Your task to perform on an android device: Do I have any events this weekend? Image 0: 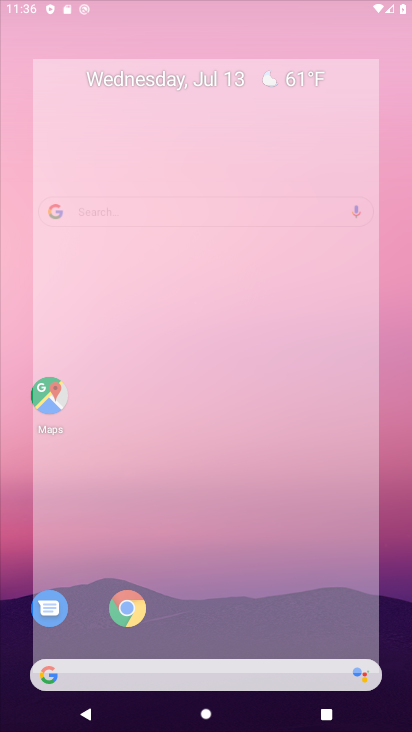
Step 0: drag from (173, 614) to (191, 241)
Your task to perform on an android device: Do I have any events this weekend? Image 1: 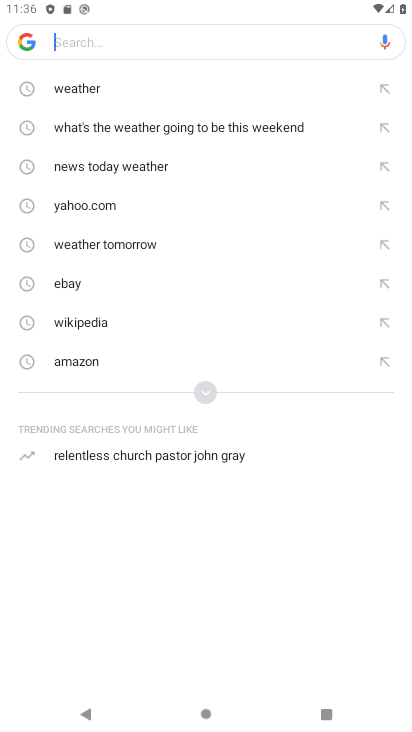
Step 1: press home button
Your task to perform on an android device: Do I have any events this weekend? Image 2: 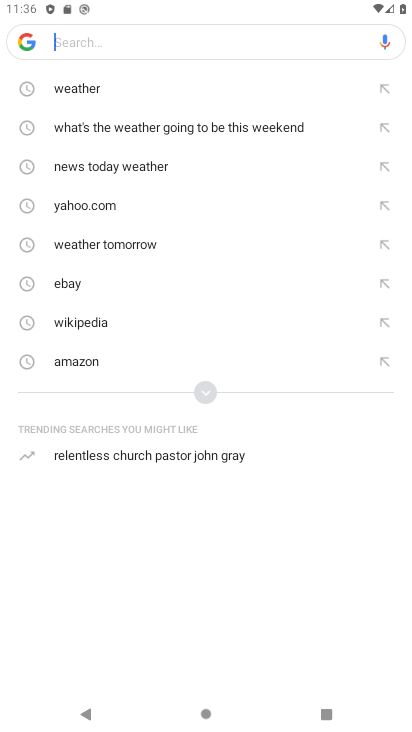
Step 2: press home button
Your task to perform on an android device: Do I have any events this weekend? Image 3: 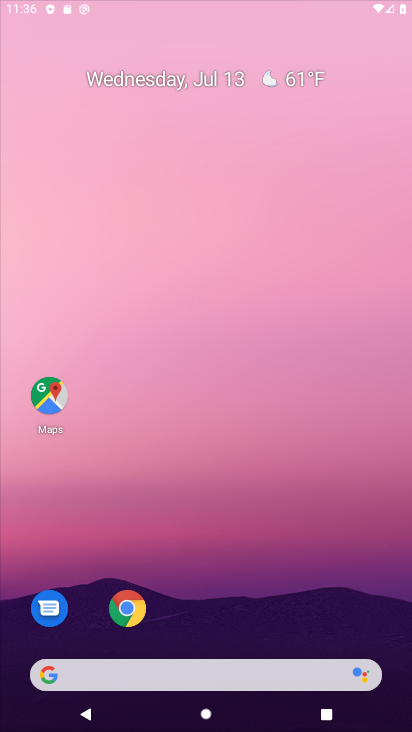
Step 3: drag from (158, 553) to (207, 147)
Your task to perform on an android device: Do I have any events this weekend? Image 4: 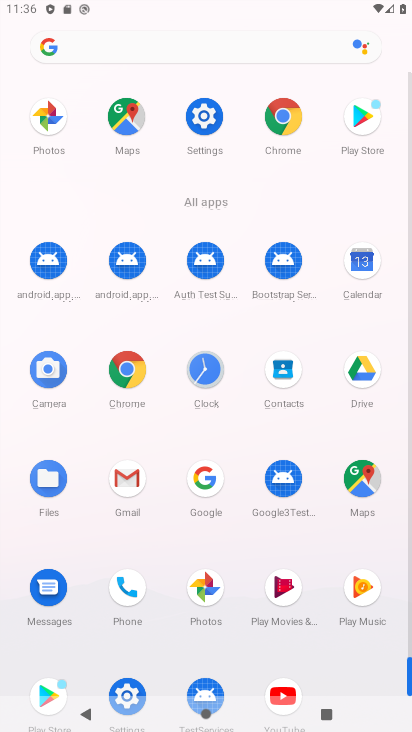
Step 4: drag from (178, 657) to (178, 340)
Your task to perform on an android device: Do I have any events this weekend? Image 5: 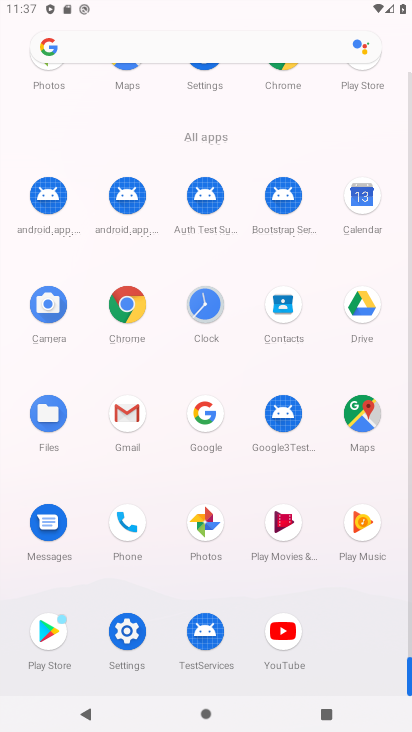
Step 5: click (356, 197)
Your task to perform on an android device: Do I have any events this weekend? Image 6: 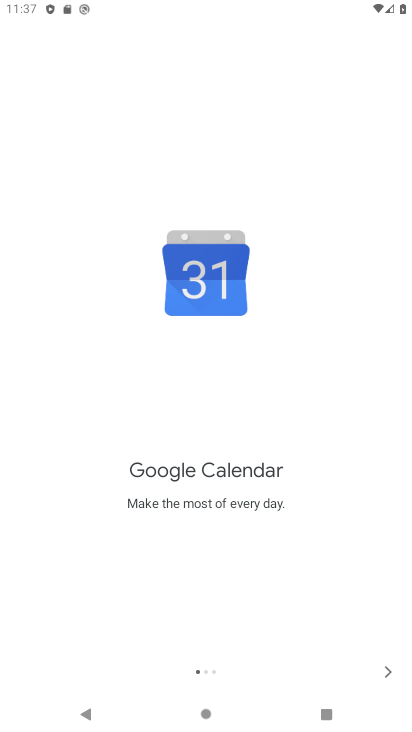
Step 6: drag from (231, 601) to (286, 431)
Your task to perform on an android device: Do I have any events this weekend? Image 7: 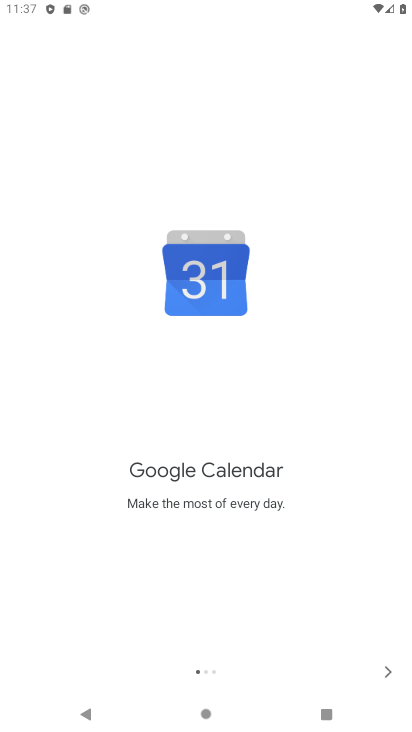
Step 7: click (385, 675)
Your task to perform on an android device: Do I have any events this weekend? Image 8: 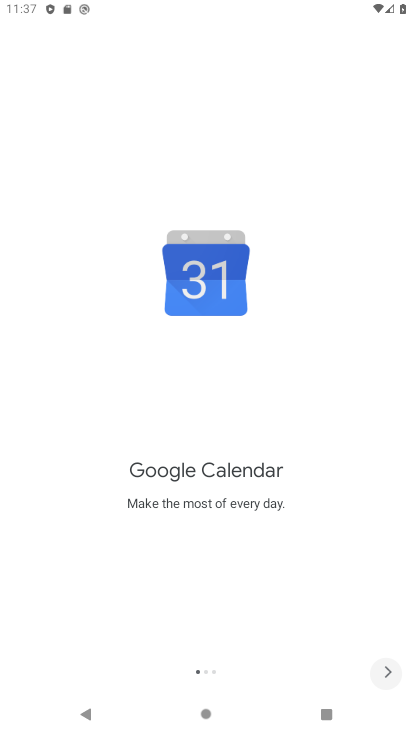
Step 8: click (384, 674)
Your task to perform on an android device: Do I have any events this weekend? Image 9: 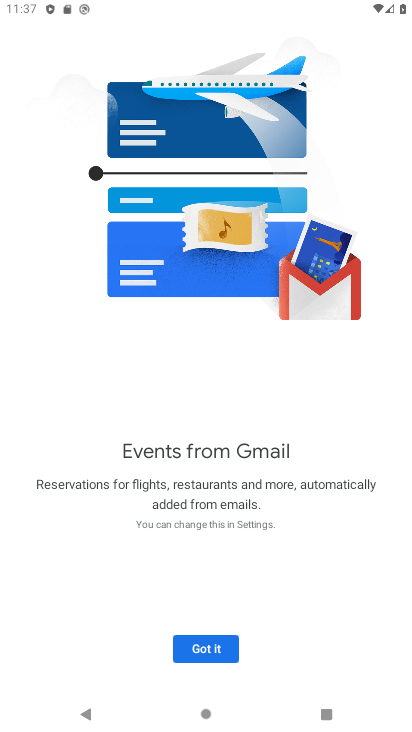
Step 9: click (385, 673)
Your task to perform on an android device: Do I have any events this weekend? Image 10: 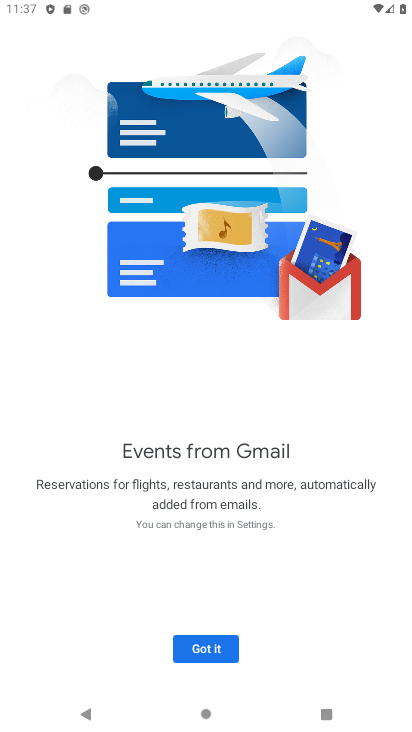
Step 10: click (205, 648)
Your task to perform on an android device: Do I have any events this weekend? Image 11: 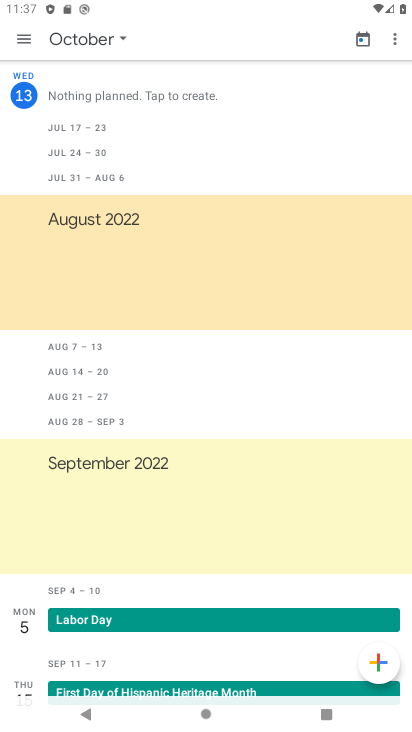
Step 11: click (85, 41)
Your task to perform on an android device: Do I have any events this weekend? Image 12: 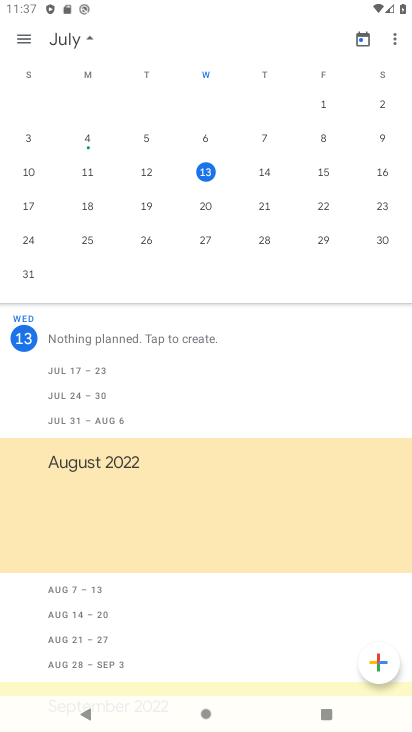
Step 12: drag from (95, 166) to (410, 229)
Your task to perform on an android device: Do I have any events this weekend? Image 13: 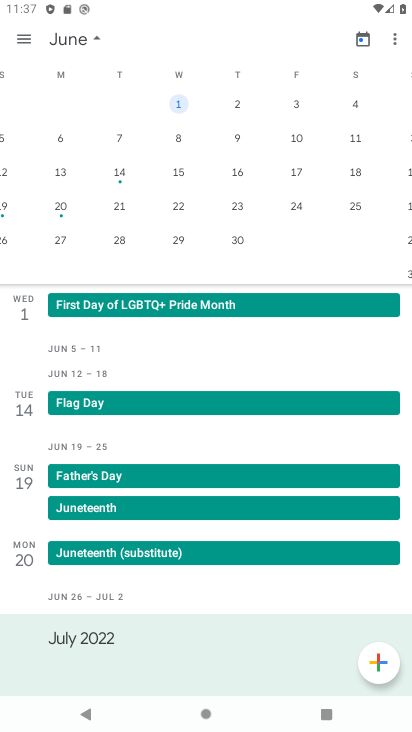
Step 13: drag from (367, 204) to (0, 198)
Your task to perform on an android device: Do I have any events this weekend? Image 14: 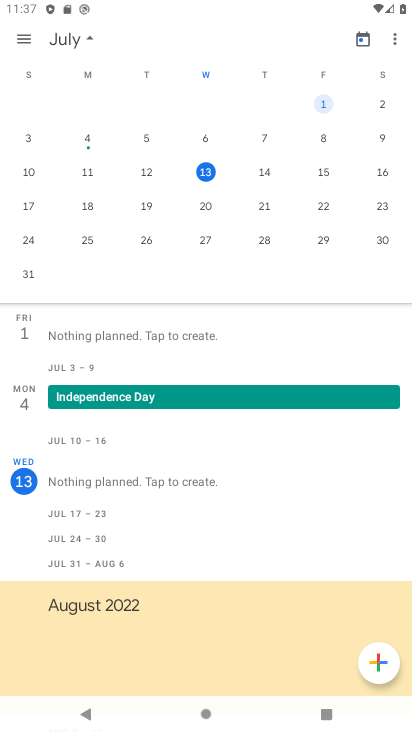
Step 14: drag from (231, 450) to (265, 318)
Your task to perform on an android device: Do I have any events this weekend? Image 15: 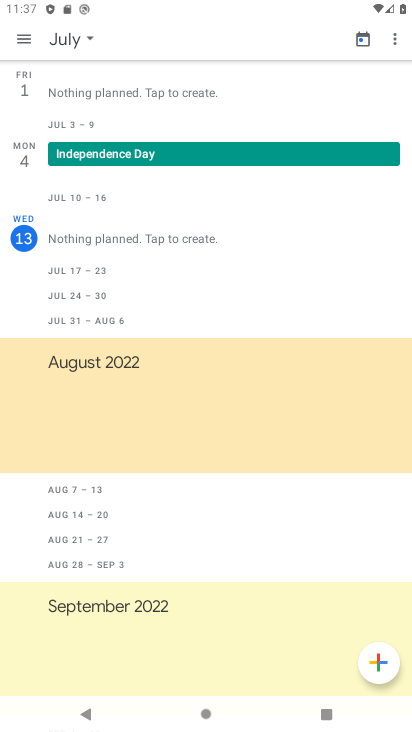
Step 15: click (66, 44)
Your task to perform on an android device: Do I have any events this weekend? Image 16: 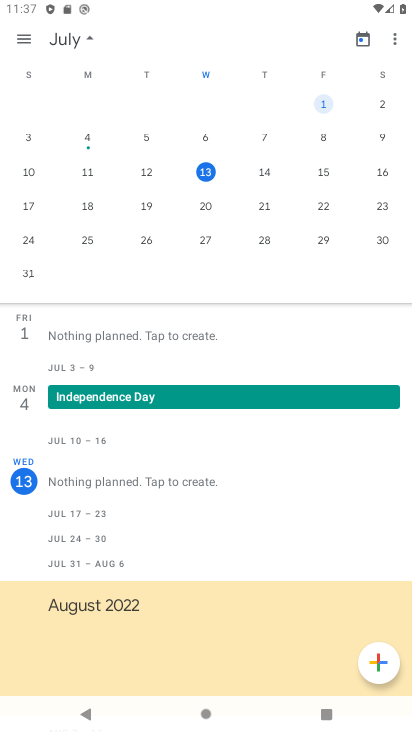
Step 16: click (385, 174)
Your task to perform on an android device: Do I have any events this weekend? Image 17: 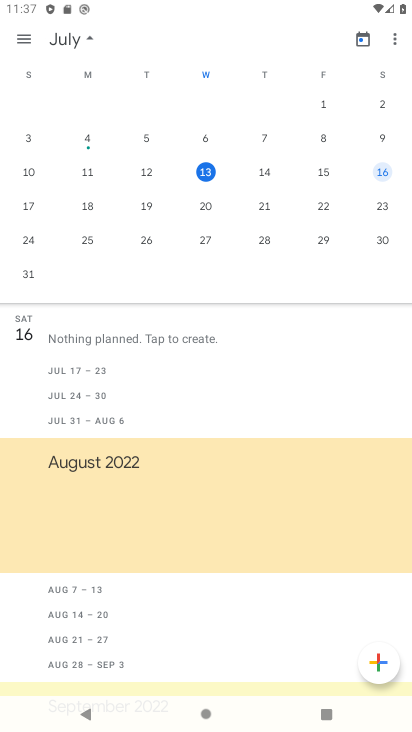
Step 17: task complete